Your task to perform on an android device: toggle show notifications on the lock screen Image 0: 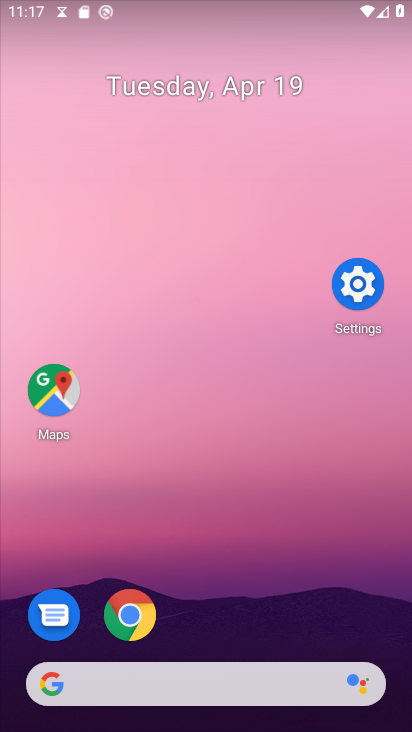
Step 0: drag from (213, 512) to (240, 71)
Your task to perform on an android device: toggle show notifications on the lock screen Image 1: 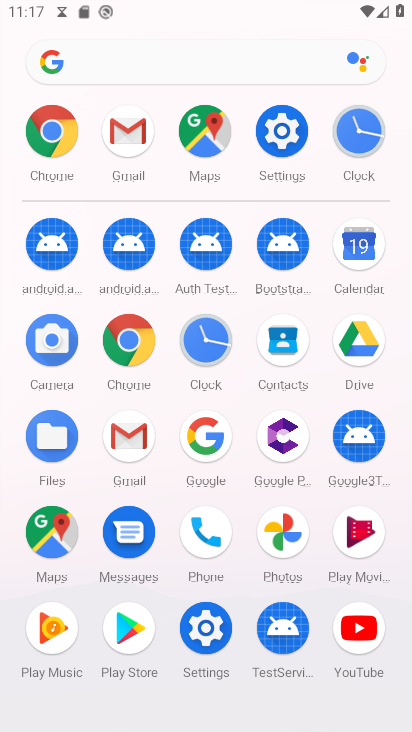
Step 1: click (201, 622)
Your task to perform on an android device: toggle show notifications on the lock screen Image 2: 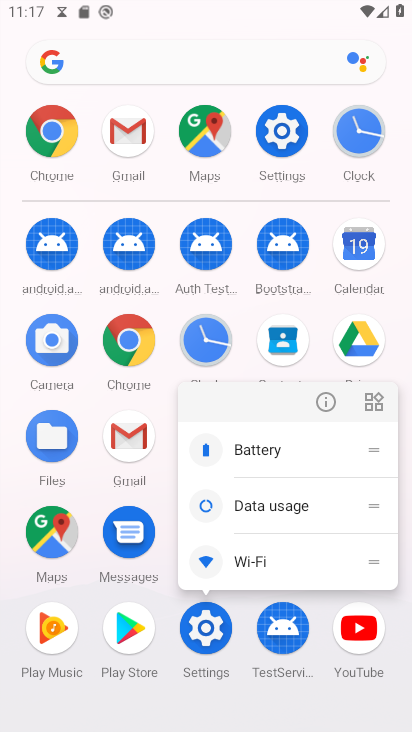
Step 2: click (319, 405)
Your task to perform on an android device: toggle show notifications on the lock screen Image 3: 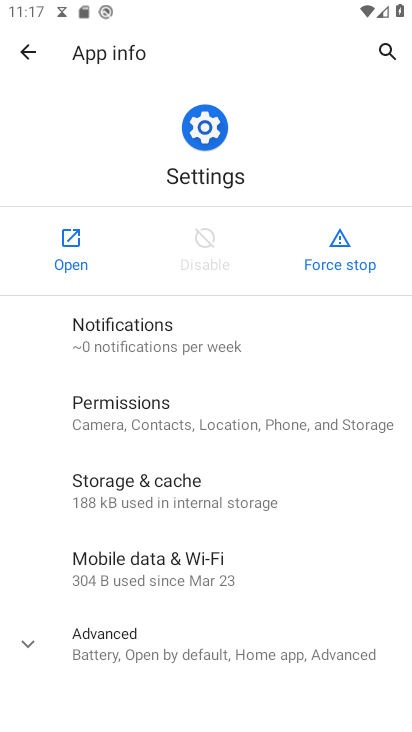
Step 3: click (67, 229)
Your task to perform on an android device: toggle show notifications on the lock screen Image 4: 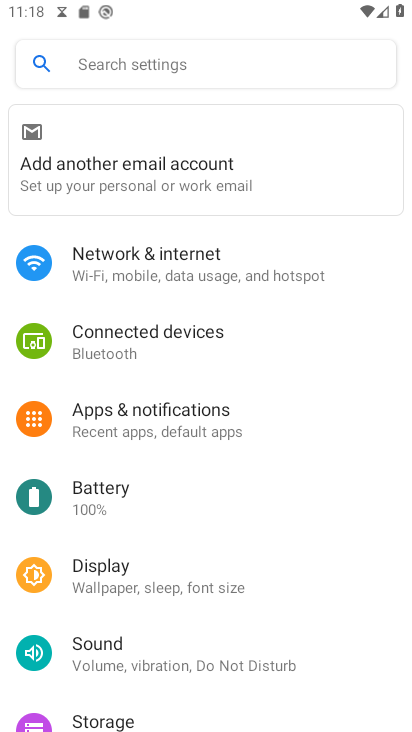
Step 4: click (175, 406)
Your task to perform on an android device: toggle show notifications on the lock screen Image 5: 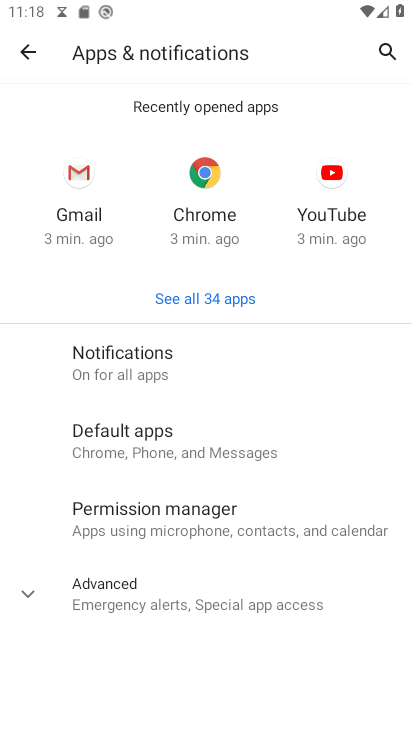
Step 5: click (218, 368)
Your task to perform on an android device: toggle show notifications on the lock screen Image 6: 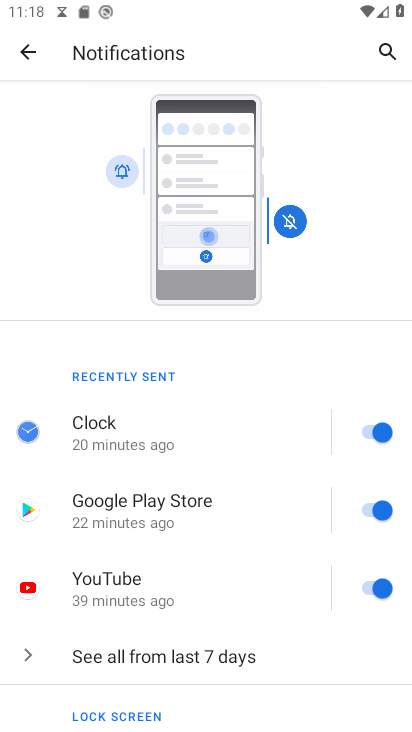
Step 6: drag from (195, 555) to (287, 12)
Your task to perform on an android device: toggle show notifications on the lock screen Image 7: 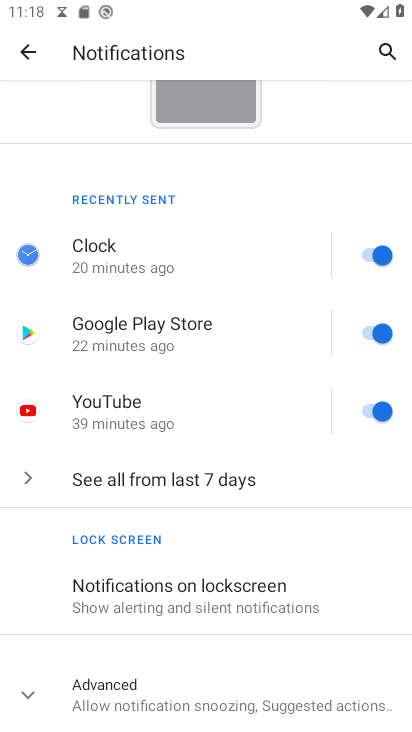
Step 7: click (198, 586)
Your task to perform on an android device: toggle show notifications on the lock screen Image 8: 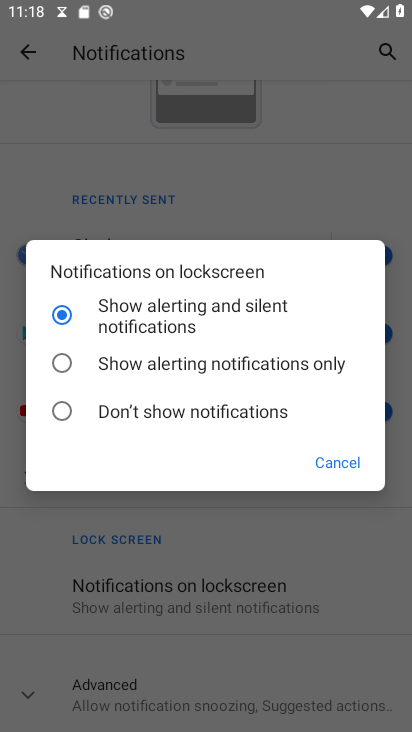
Step 8: click (217, 370)
Your task to perform on an android device: toggle show notifications on the lock screen Image 9: 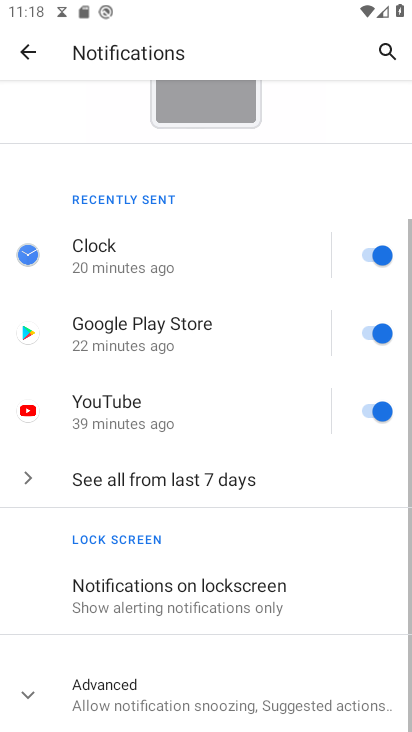
Step 9: task complete